Your task to perform on an android device: turn on notifications settings in the gmail app Image 0: 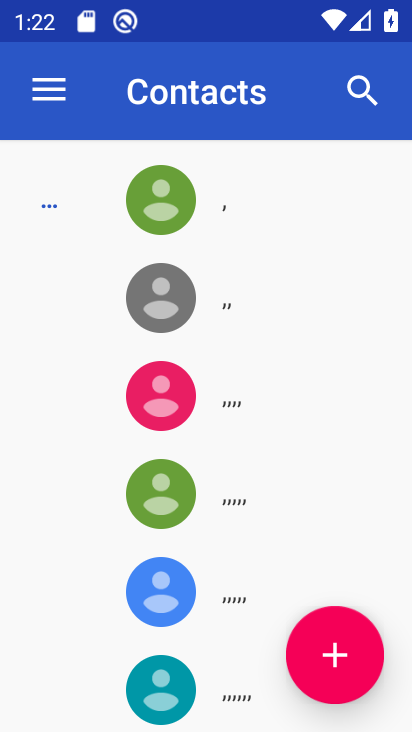
Step 0: press home button
Your task to perform on an android device: turn on notifications settings in the gmail app Image 1: 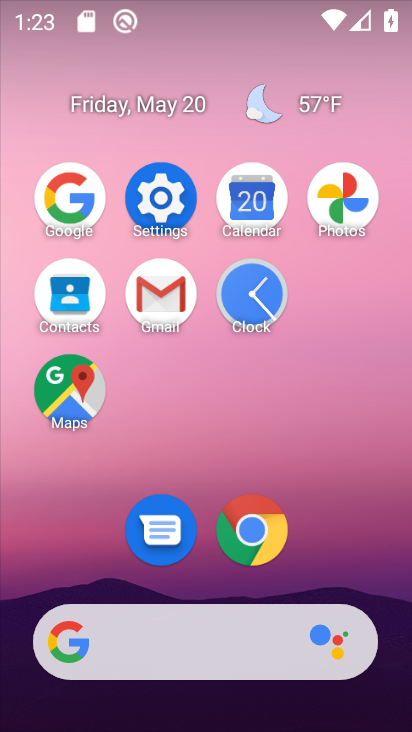
Step 1: click (142, 288)
Your task to perform on an android device: turn on notifications settings in the gmail app Image 2: 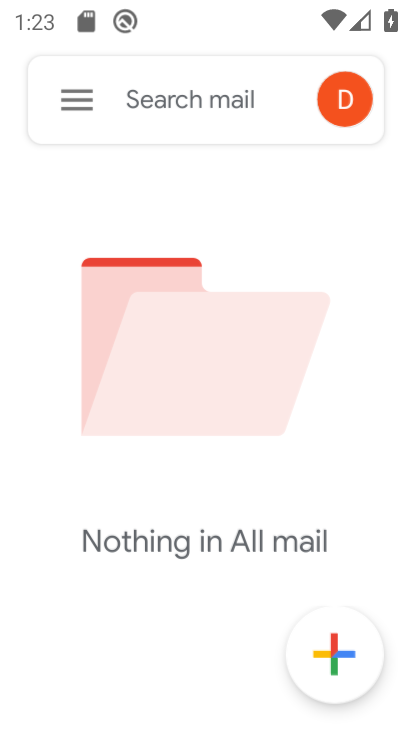
Step 2: click (79, 113)
Your task to perform on an android device: turn on notifications settings in the gmail app Image 3: 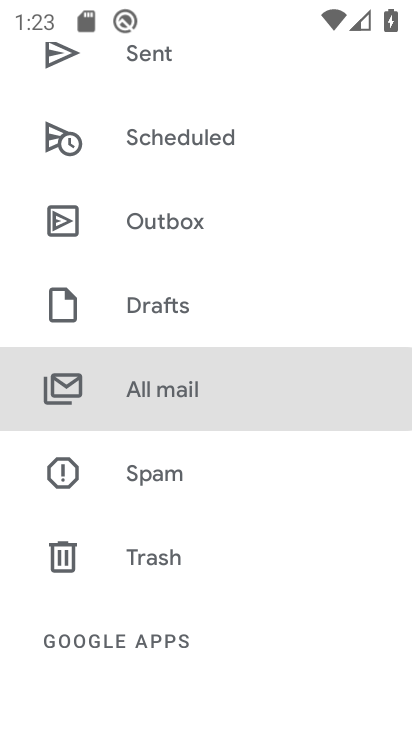
Step 3: drag from (215, 555) to (235, 243)
Your task to perform on an android device: turn on notifications settings in the gmail app Image 4: 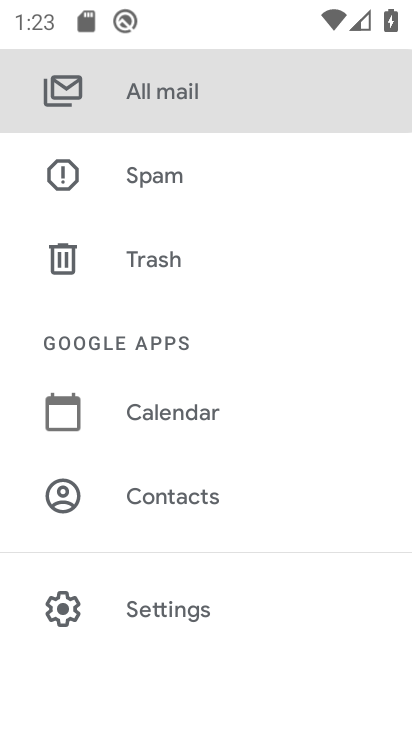
Step 4: click (209, 591)
Your task to perform on an android device: turn on notifications settings in the gmail app Image 5: 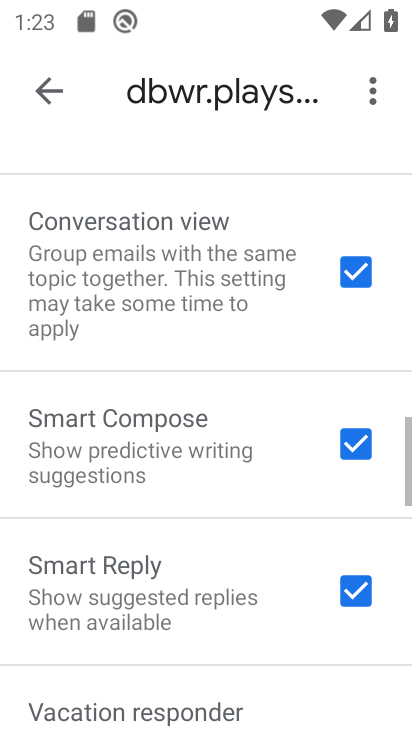
Step 5: drag from (171, 516) to (229, 195)
Your task to perform on an android device: turn on notifications settings in the gmail app Image 6: 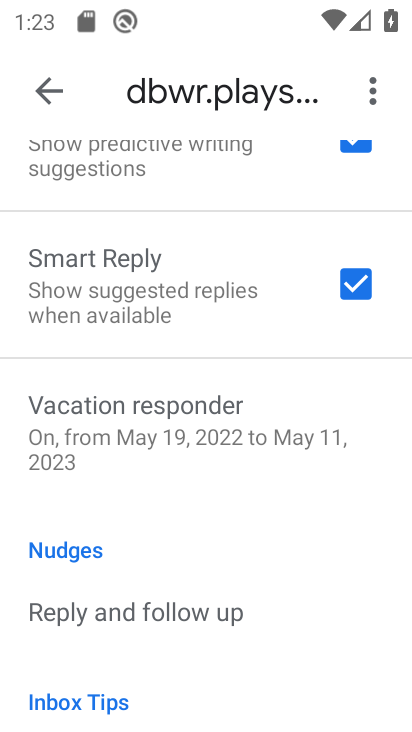
Step 6: drag from (230, 508) to (218, 151)
Your task to perform on an android device: turn on notifications settings in the gmail app Image 7: 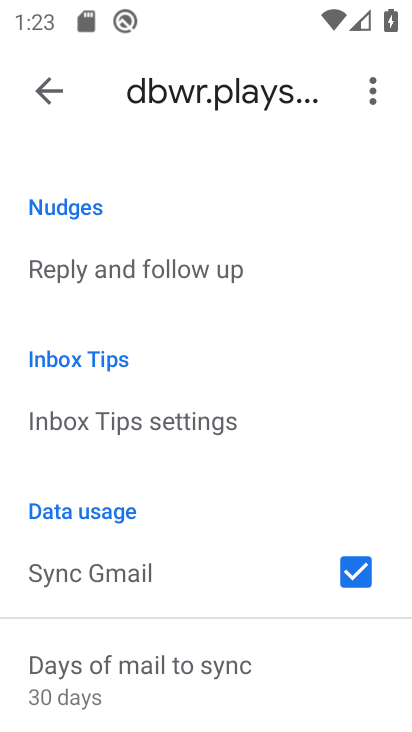
Step 7: drag from (240, 526) to (261, 152)
Your task to perform on an android device: turn on notifications settings in the gmail app Image 8: 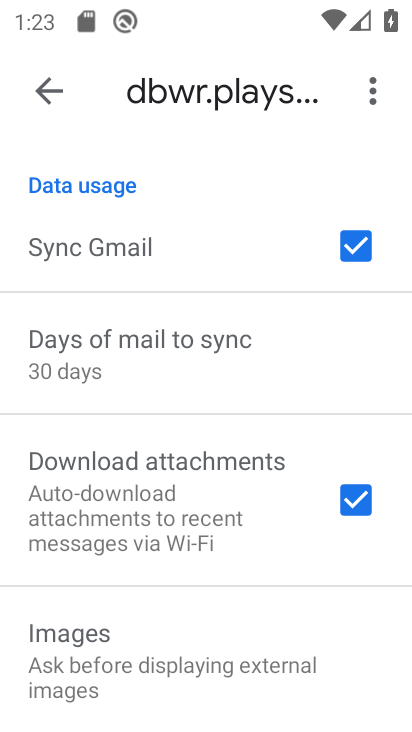
Step 8: drag from (253, 510) to (273, 139)
Your task to perform on an android device: turn on notifications settings in the gmail app Image 9: 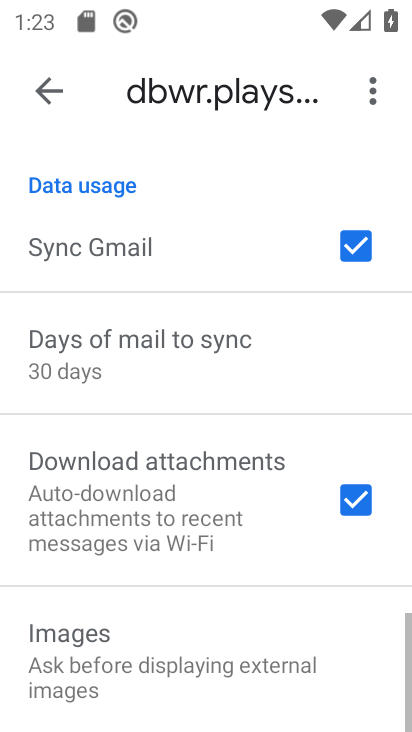
Step 9: drag from (266, 521) to (298, 121)
Your task to perform on an android device: turn on notifications settings in the gmail app Image 10: 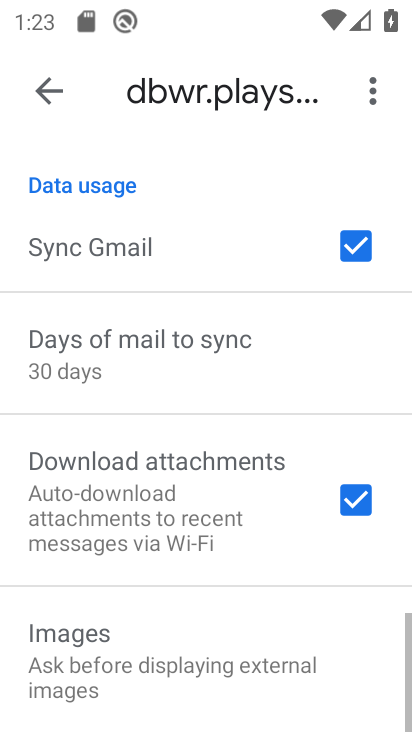
Step 10: drag from (246, 306) to (285, 726)
Your task to perform on an android device: turn on notifications settings in the gmail app Image 11: 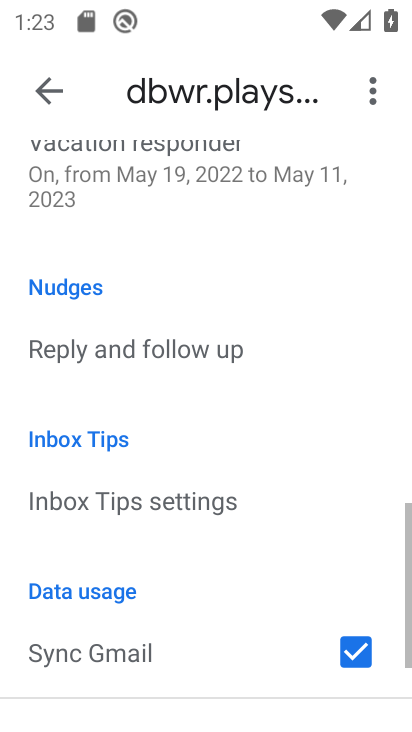
Step 11: drag from (205, 254) to (228, 656)
Your task to perform on an android device: turn on notifications settings in the gmail app Image 12: 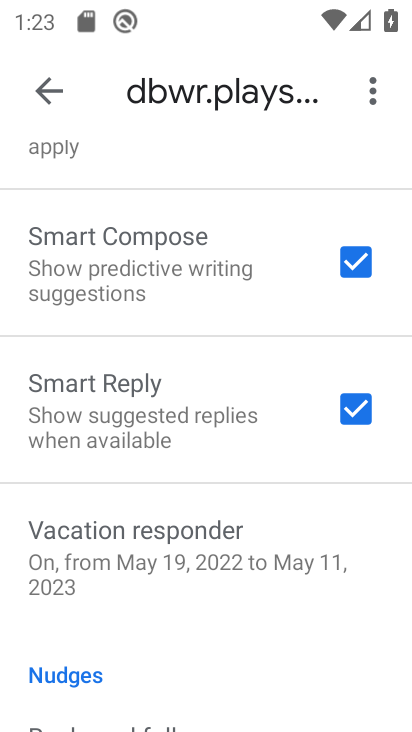
Step 12: drag from (237, 261) to (251, 668)
Your task to perform on an android device: turn on notifications settings in the gmail app Image 13: 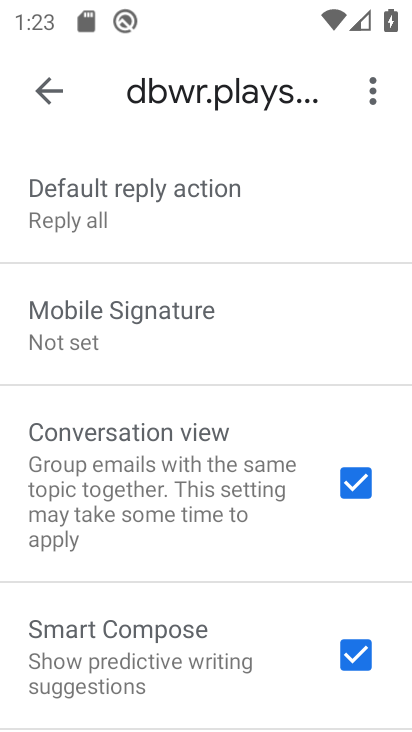
Step 13: drag from (257, 230) to (253, 625)
Your task to perform on an android device: turn on notifications settings in the gmail app Image 14: 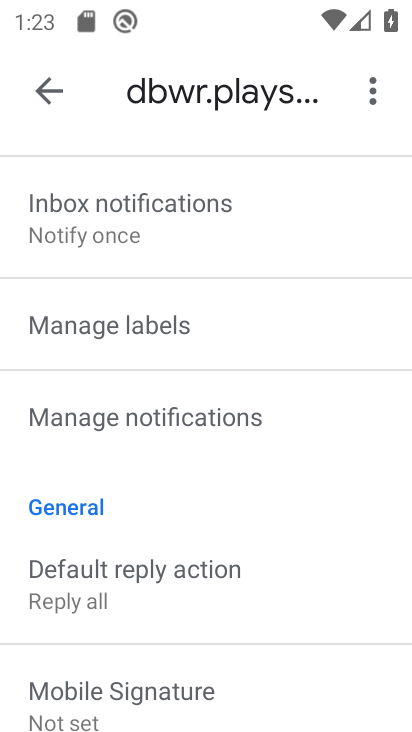
Step 14: drag from (258, 222) to (269, 524)
Your task to perform on an android device: turn on notifications settings in the gmail app Image 15: 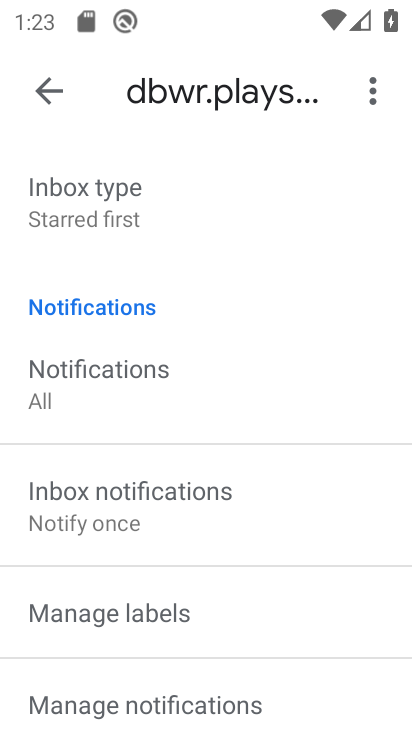
Step 15: click (202, 372)
Your task to perform on an android device: turn on notifications settings in the gmail app Image 16: 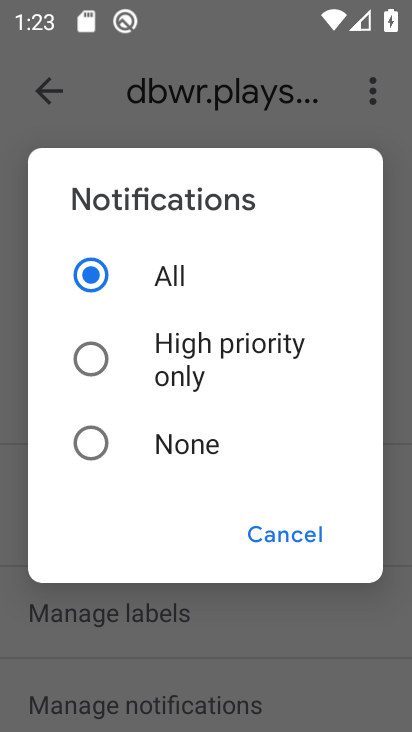
Step 16: task complete